Your task to perform on an android device: Play the last video I watched on Youtube Image 0: 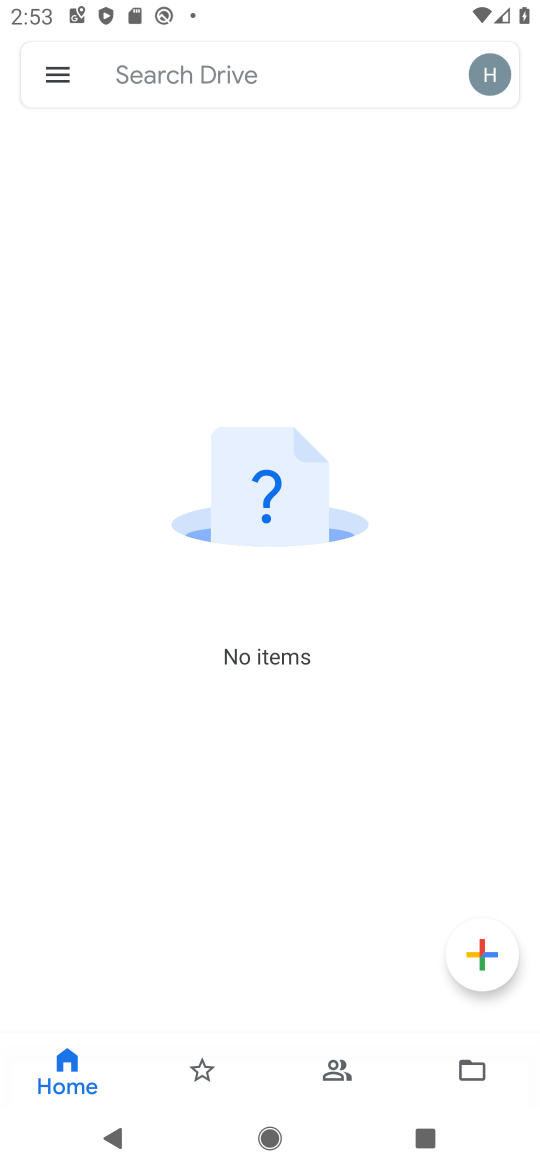
Step 0: press home button
Your task to perform on an android device: Play the last video I watched on Youtube Image 1: 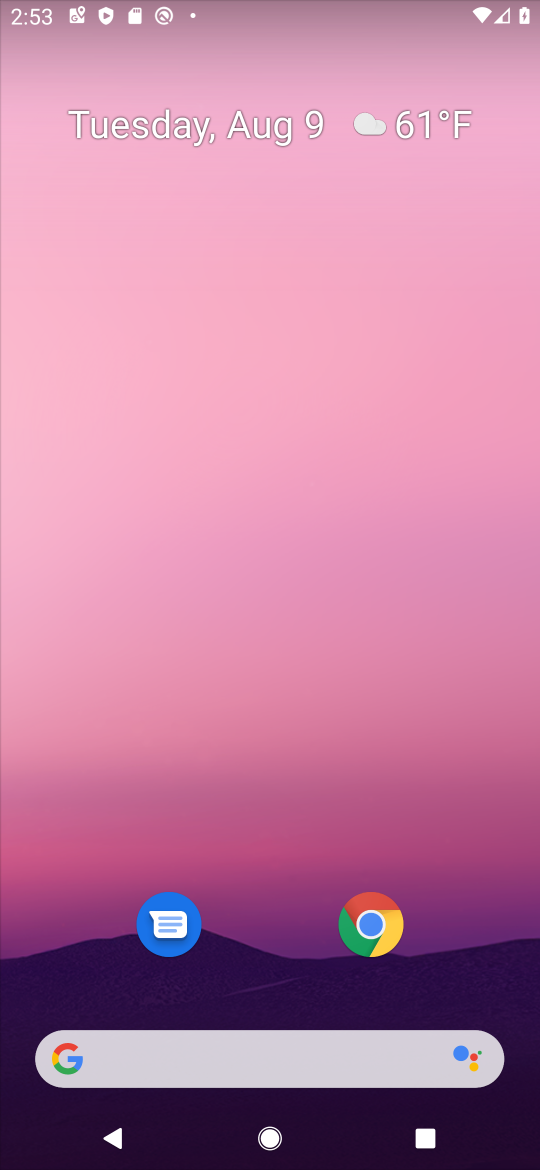
Step 1: drag from (295, 917) to (363, 95)
Your task to perform on an android device: Play the last video I watched on Youtube Image 2: 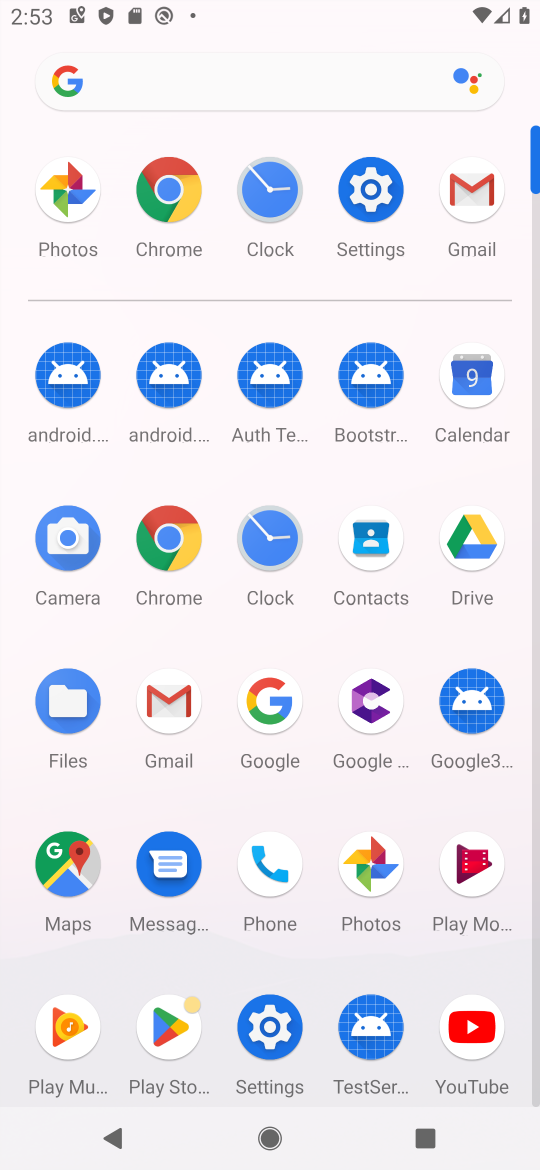
Step 2: click (482, 1018)
Your task to perform on an android device: Play the last video I watched on Youtube Image 3: 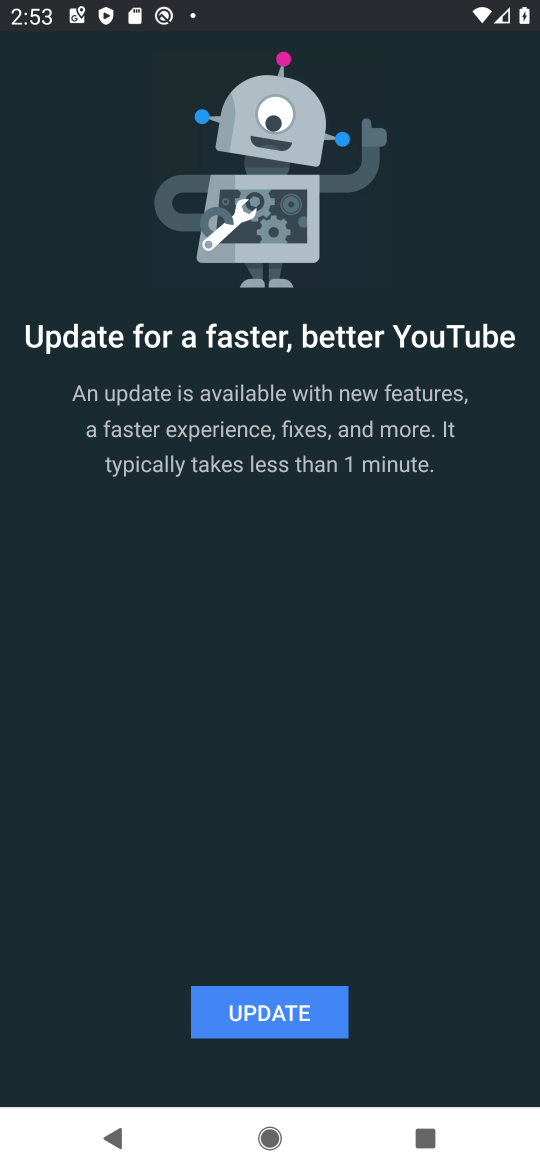
Step 3: click (329, 1005)
Your task to perform on an android device: Play the last video I watched on Youtube Image 4: 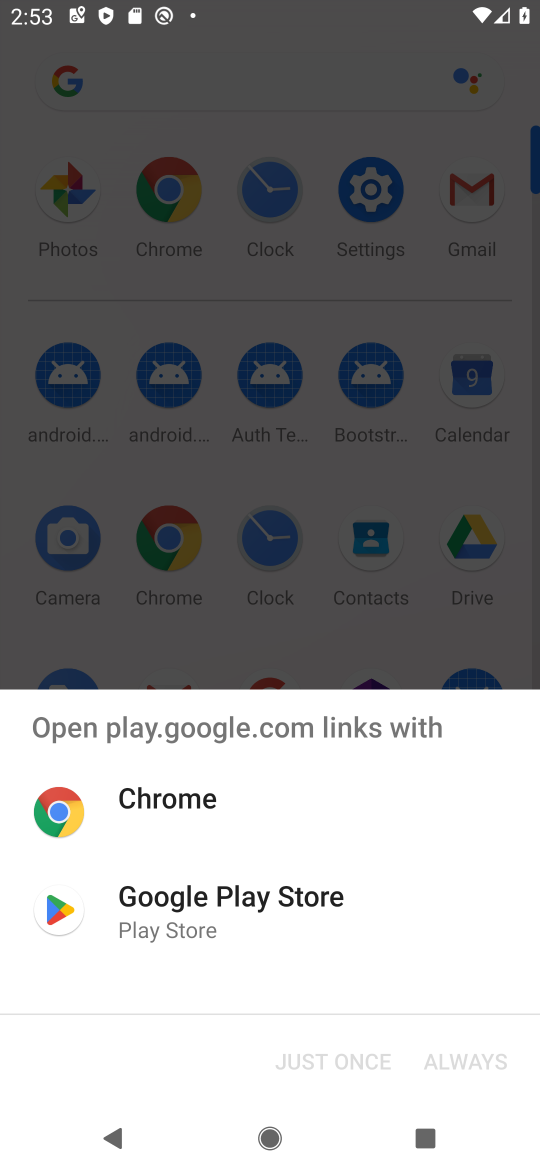
Step 4: click (231, 925)
Your task to perform on an android device: Play the last video I watched on Youtube Image 5: 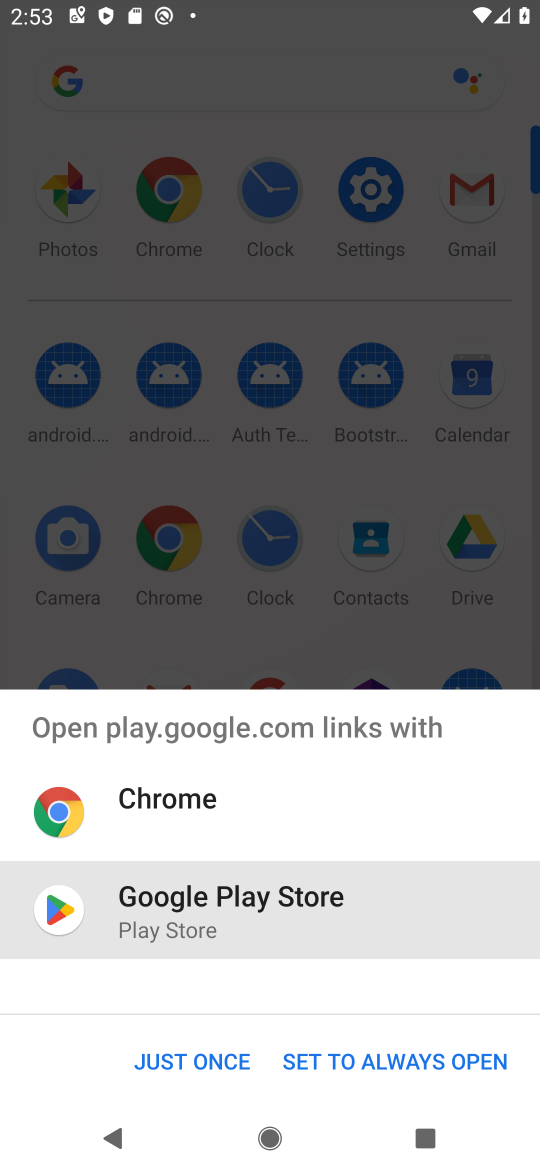
Step 5: click (216, 1066)
Your task to perform on an android device: Play the last video I watched on Youtube Image 6: 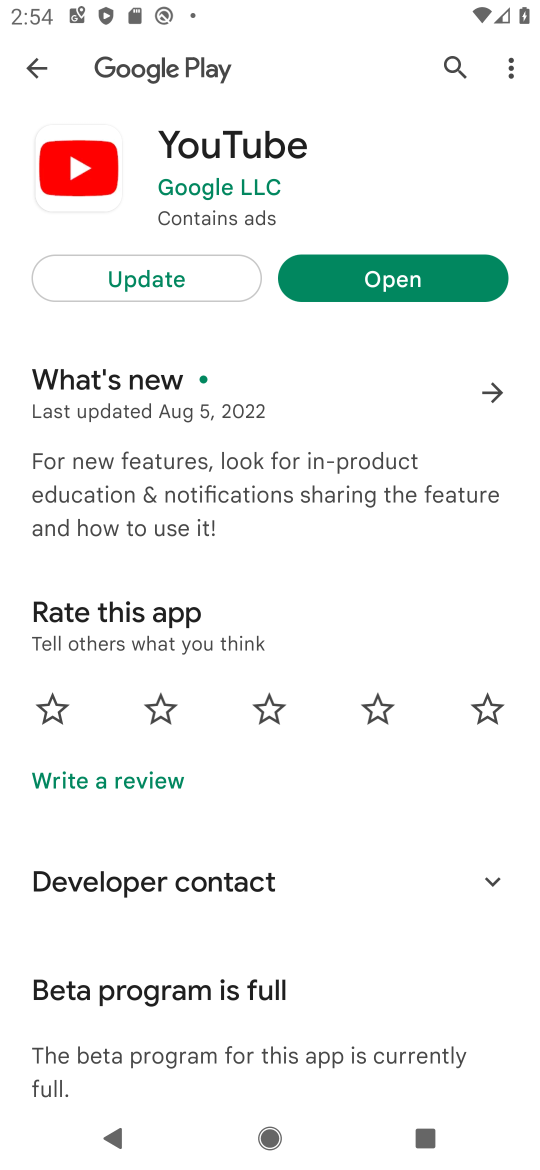
Step 6: click (241, 273)
Your task to perform on an android device: Play the last video I watched on Youtube Image 7: 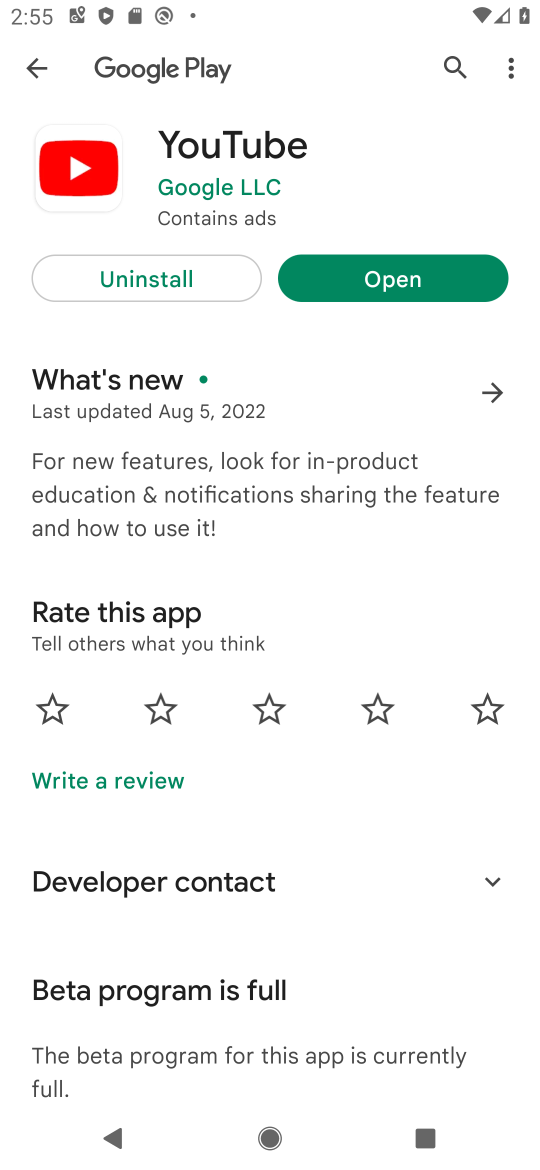
Step 7: click (483, 275)
Your task to perform on an android device: Play the last video I watched on Youtube Image 8: 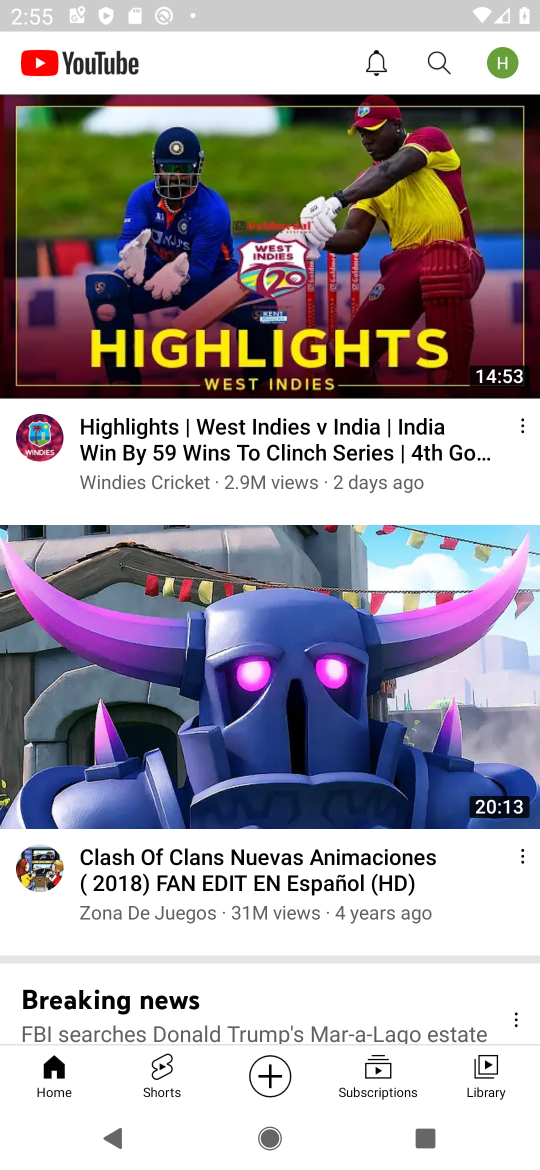
Step 8: click (489, 1070)
Your task to perform on an android device: Play the last video I watched on Youtube Image 9: 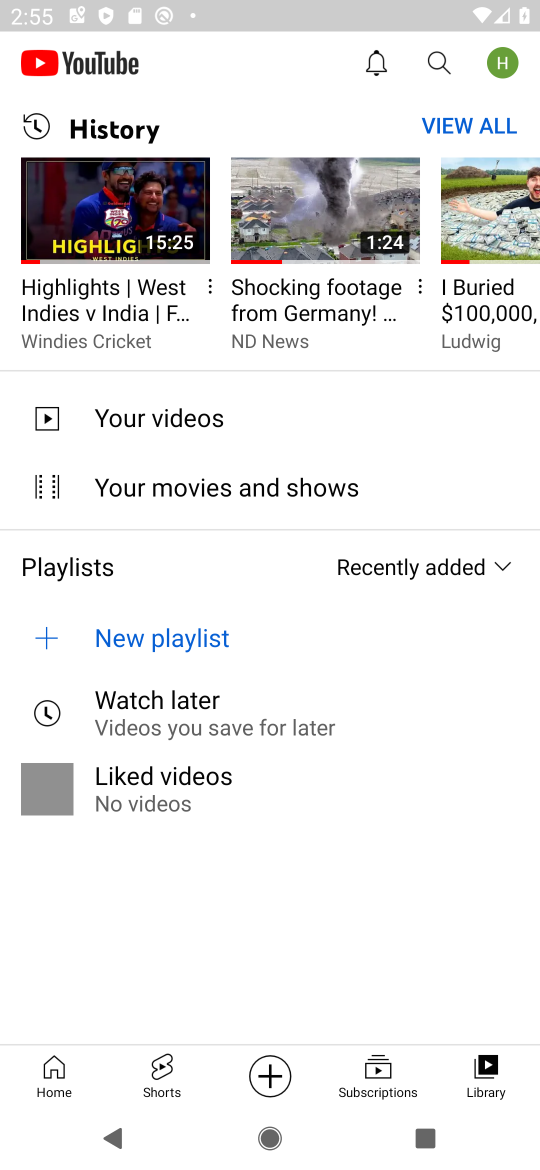
Step 9: click (141, 244)
Your task to perform on an android device: Play the last video I watched on Youtube Image 10: 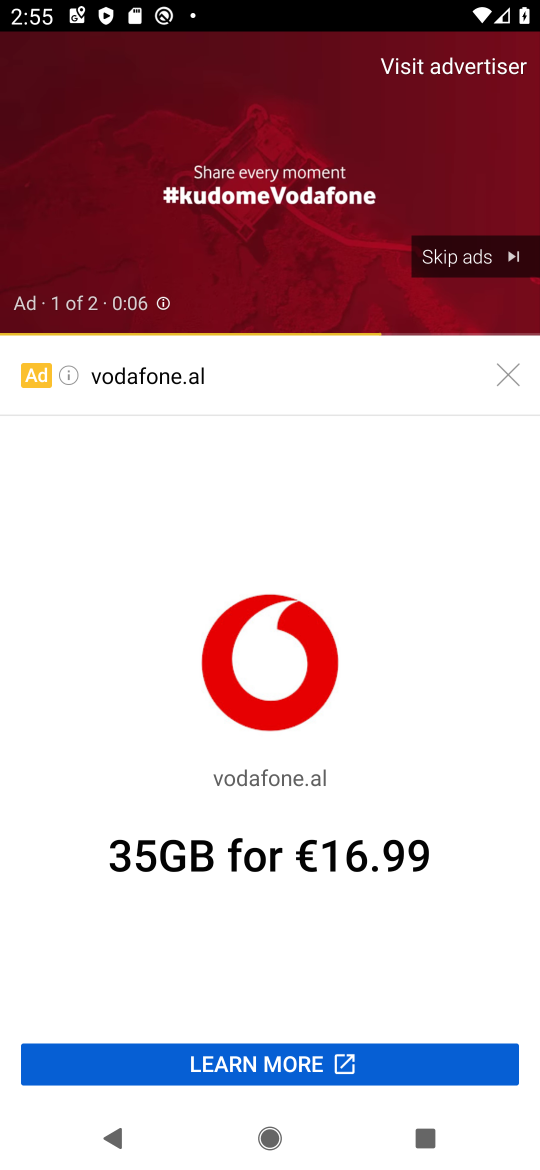
Step 10: click (503, 372)
Your task to perform on an android device: Play the last video I watched on Youtube Image 11: 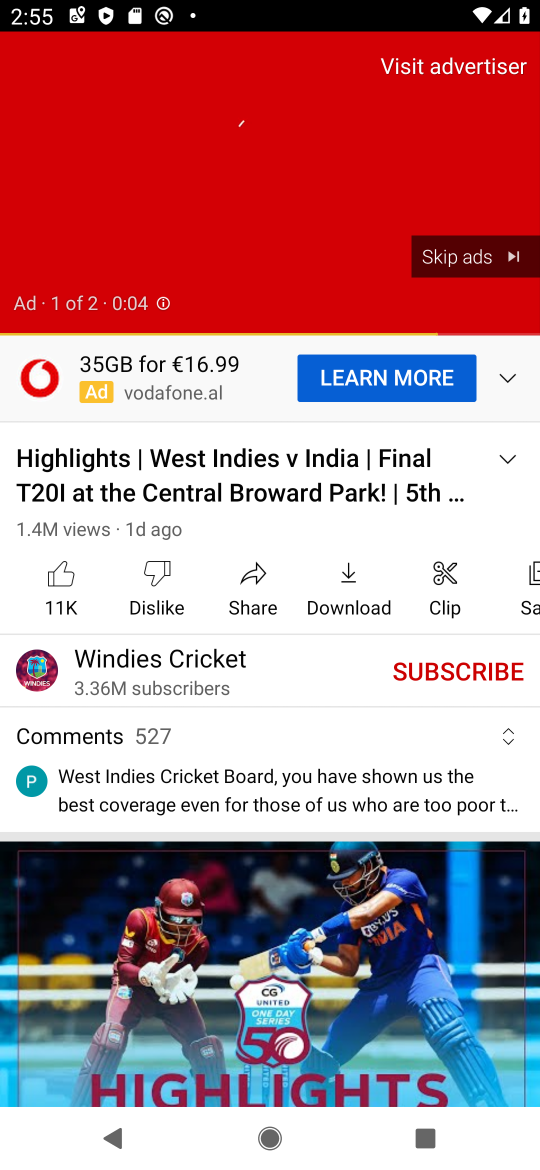
Step 11: click (481, 249)
Your task to perform on an android device: Play the last video I watched on Youtube Image 12: 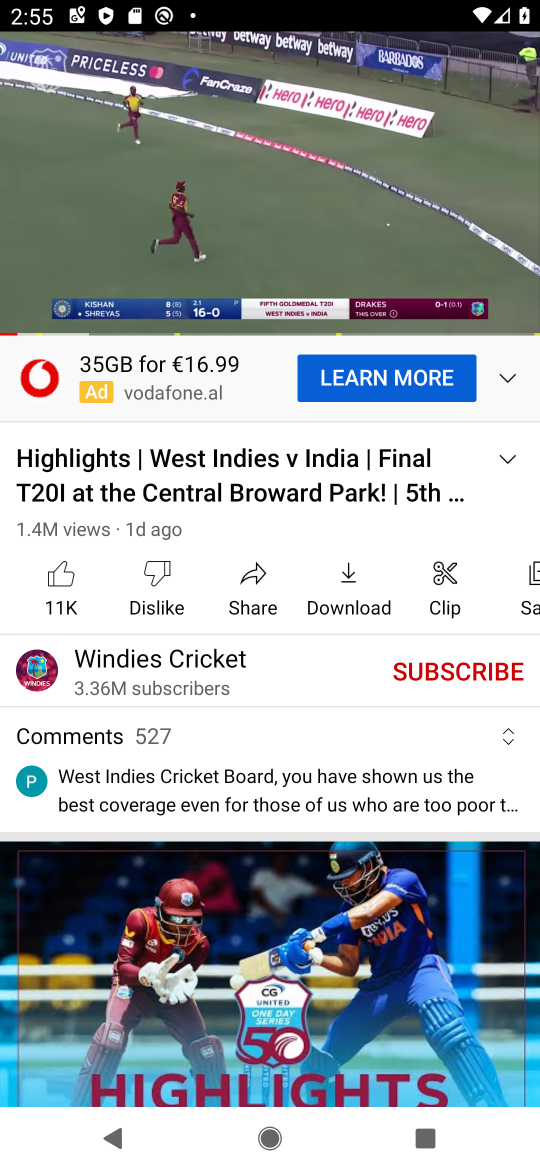
Step 12: task complete